Your task to perform on an android device: Search for Mexican restaurants on Maps Image 0: 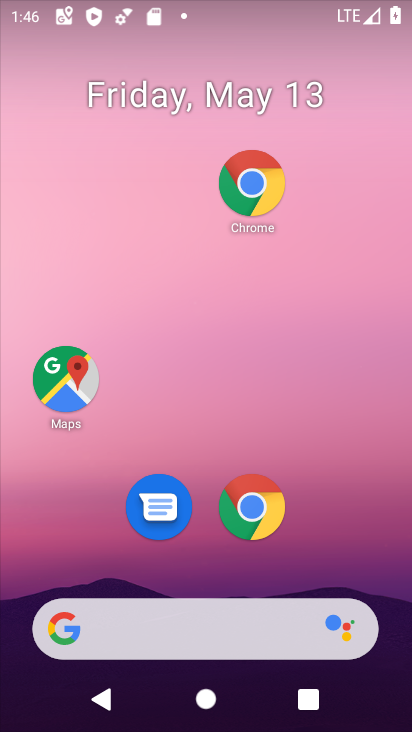
Step 0: drag from (383, 562) to (221, 41)
Your task to perform on an android device: Search for Mexican restaurants on Maps Image 1: 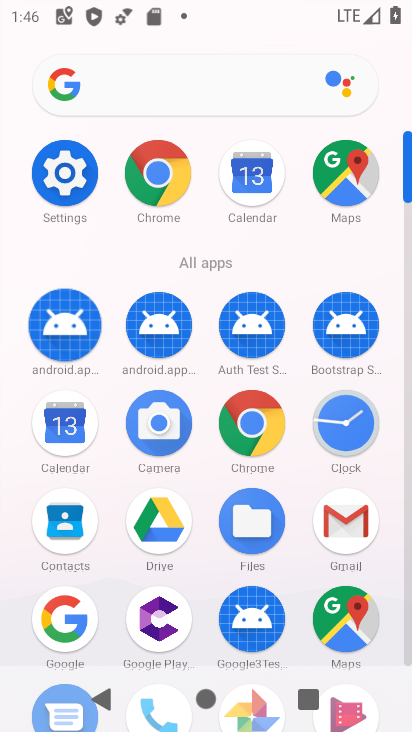
Step 1: click (350, 168)
Your task to perform on an android device: Search for Mexican restaurants on Maps Image 2: 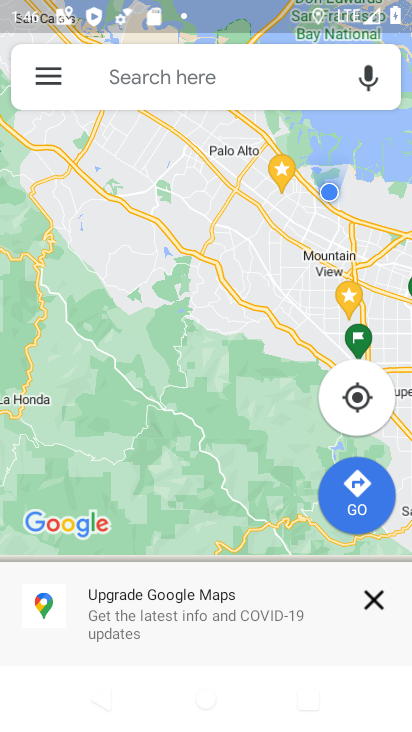
Step 2: click (104, 75)
Your task to perform on an android device: Search for Mexican restaurants on Maps Image 3: 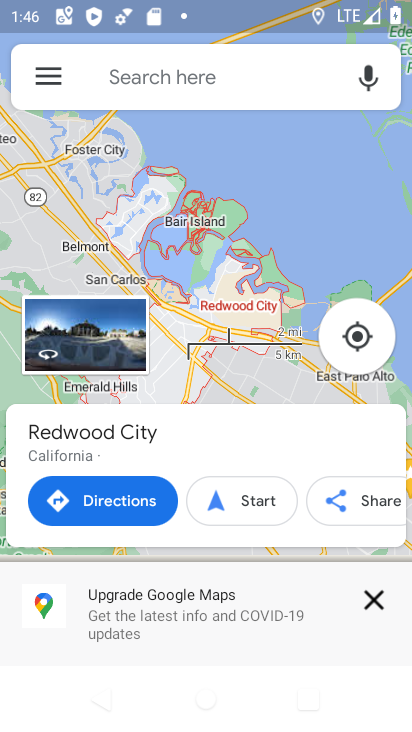
Step 3: click (136, 78)
Your task to perform on an android device: Search for Mexican restaurants on Maps Image 4: 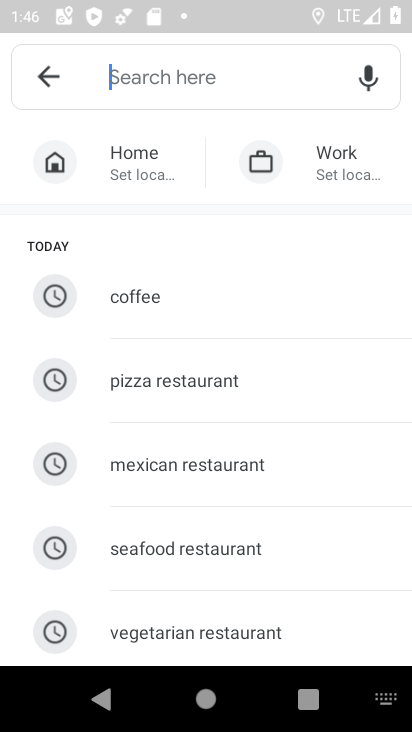
Step 4: click (180, 463)
Your task to perform on an android device: Search for Mexican restaurants on Maps Image 5: 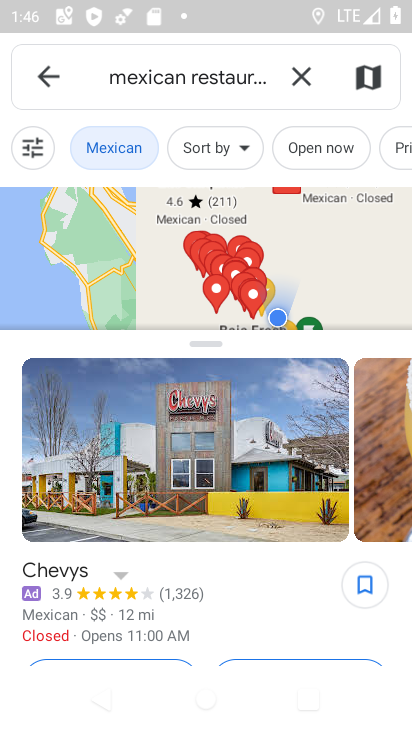
Step 5: task complete